Your task to perform on an android device: turn off improve location accuracy Image 0: 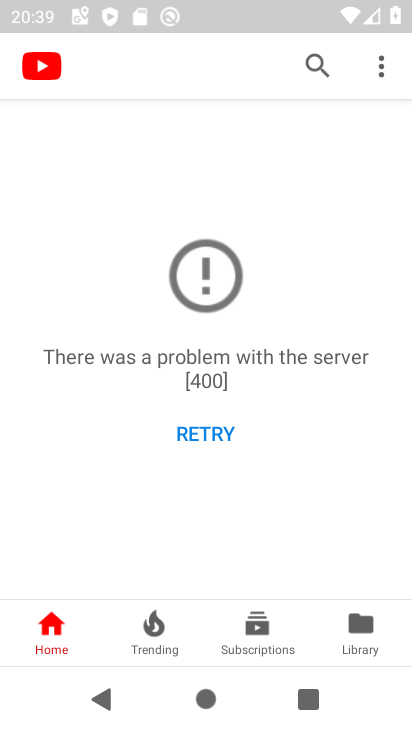
Step 0: press back button
Your task to perform on an android device: turn off improve location accuracy Image 1: 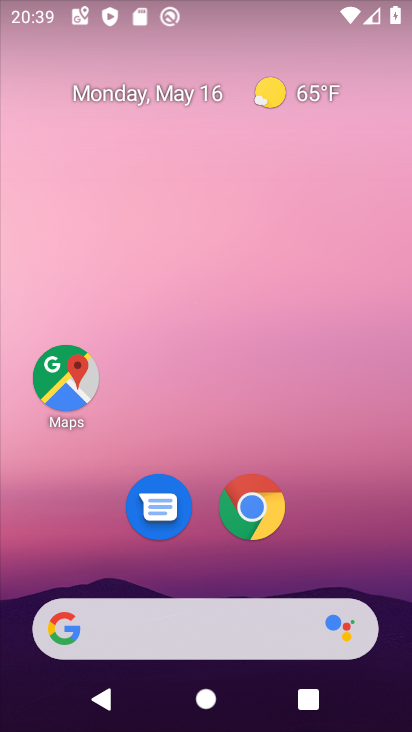
Step 1: drag from (216, 598) to (362, 5)
Your task to perform on an android device: turn off improve location accuracy Image 2: 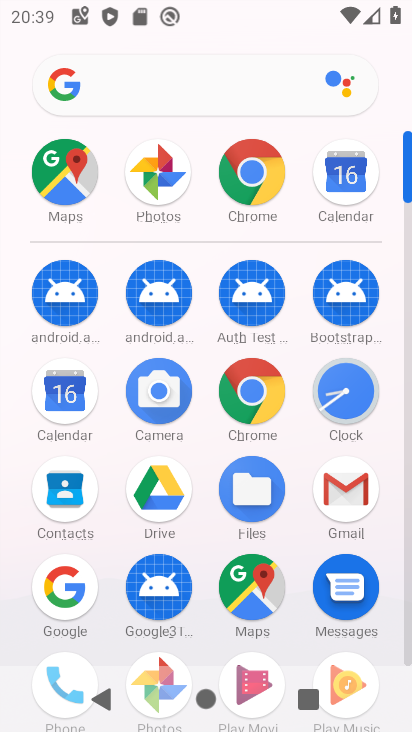
Step 2: drag from (207, 516) to (220, 7)
Your task to perform on an android device: turn off improve location accuracy Image 3: 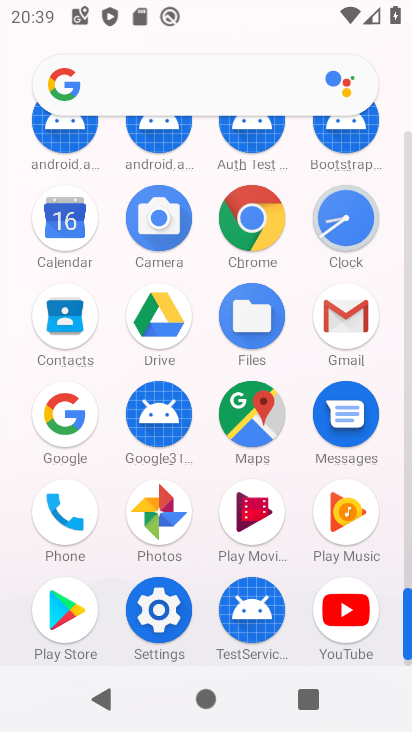
Step 3: click (164, 608)
Your task to perform on an android device: turn off improve location accuracy Image 4: 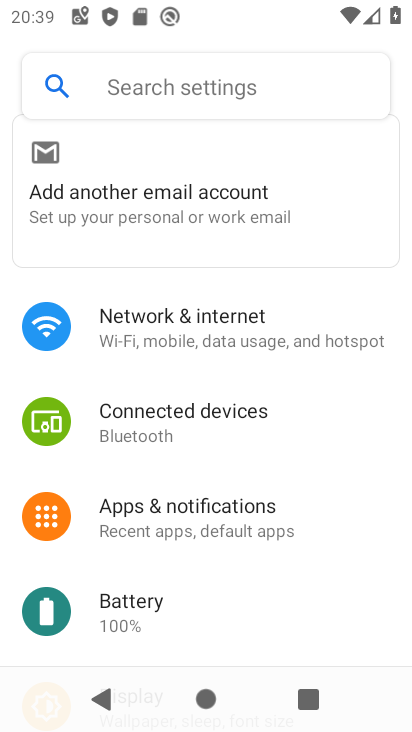
Step 4: drag from (241, 565) to (194, 180)
Your task to perform on an android device: turn off improve location accuracy Image 5: 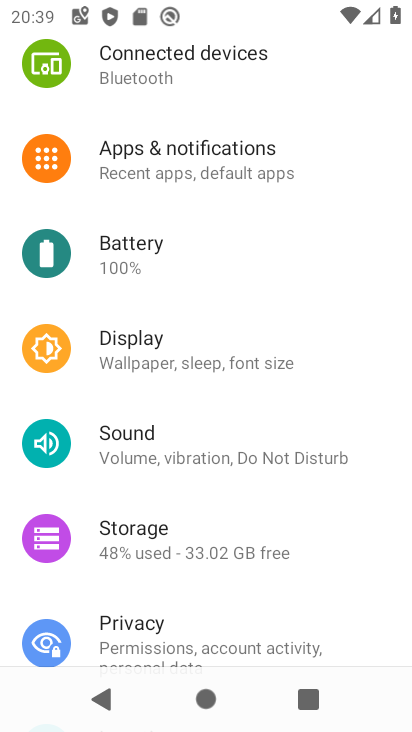
Step 5: drag from (255, 497) to (234, 296)
Your task to perform on an android device: turn off improve location accuracy Image 6: 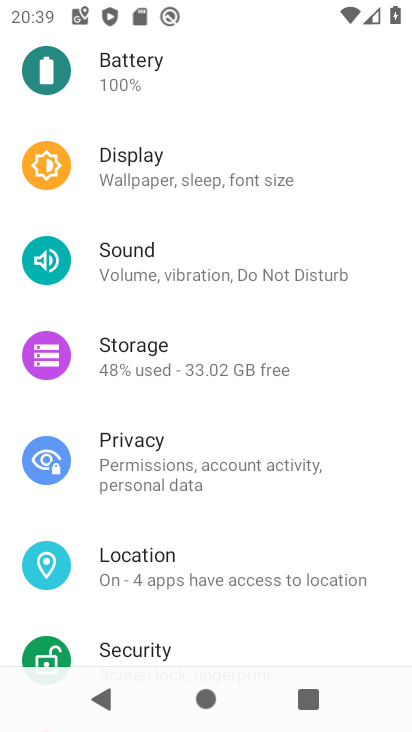
Step 6: click (169, 566)
Your task to perform on an android device: turn off improve location accuracy Image 7: 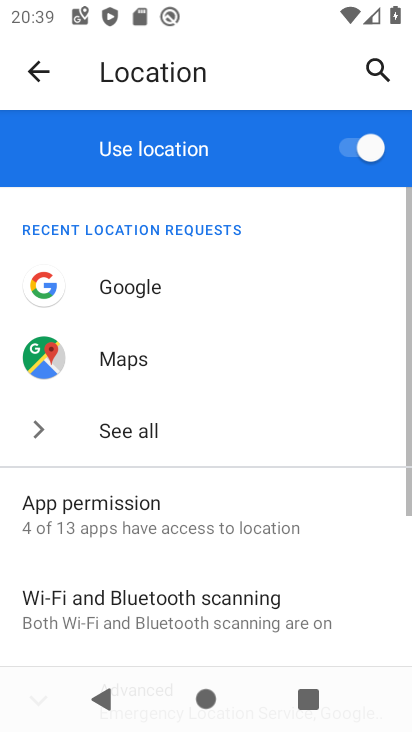
Step 7: drag from (169, 566) to (113, 127)
Your task to perform on an android device: turn off improve location accuracy Image 8: 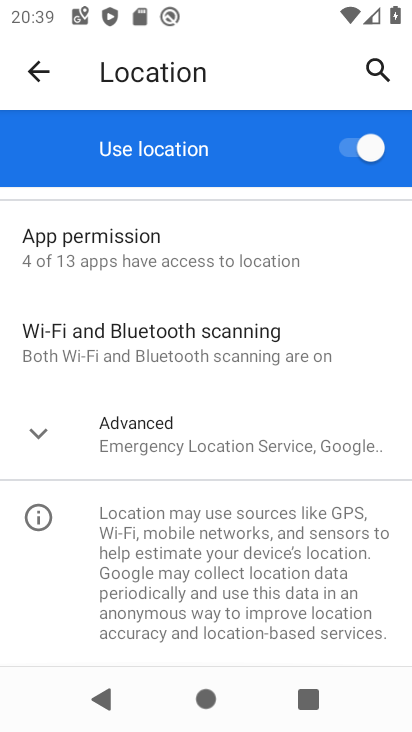
Step 8: click (211, 421)
Your task to perform on an android device: turn off improve location accuracy Image 9: 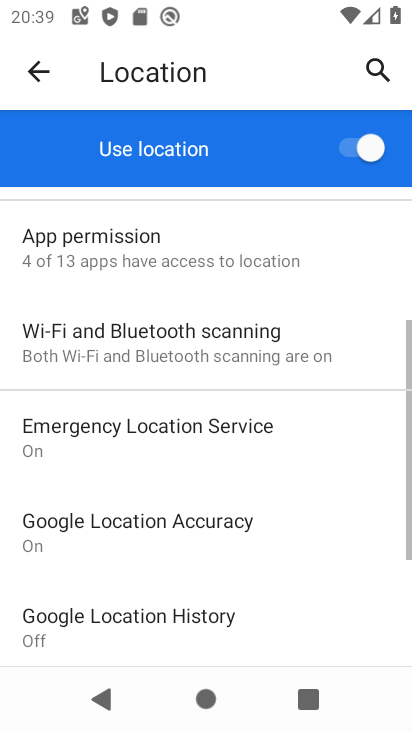
Step 9: drag from (211, 421) to (213, 287)
Your task to perform on an android device: turn off improve location accuracy Image 10: 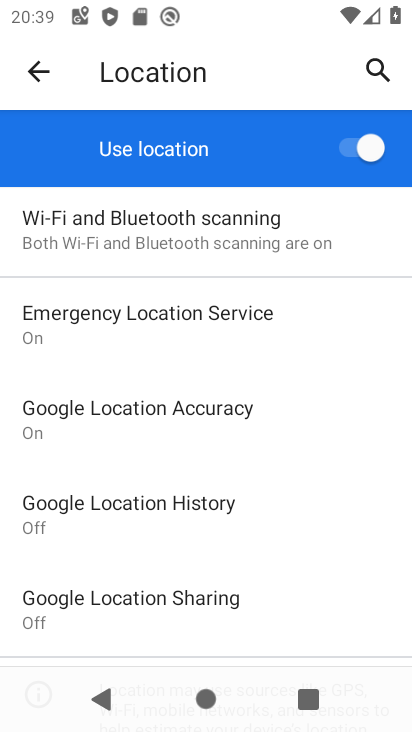
Step 10: click (178, 435)
Your task to perform on an android device: turn off improve location accuracy Image 11: 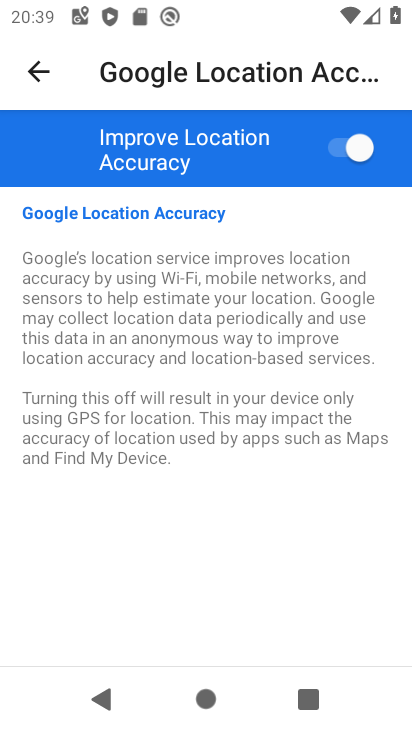
Step 11: click (333, 159)
Your task to perform on an android device: turn off improve location accuracy Image 12: 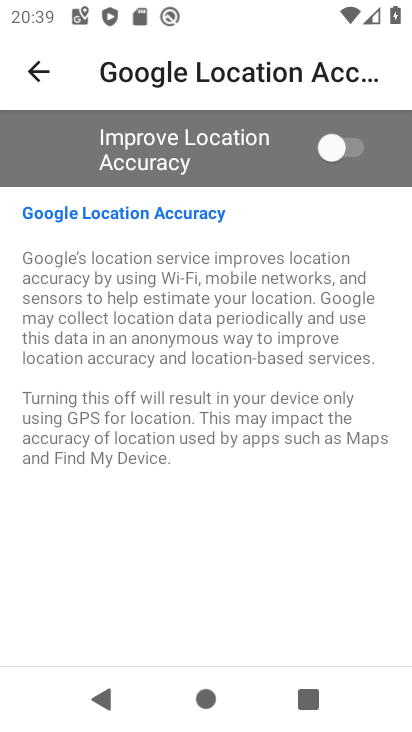
Step 12: task complete